Your task to perform on an android device: change keyboard looks Image 0: 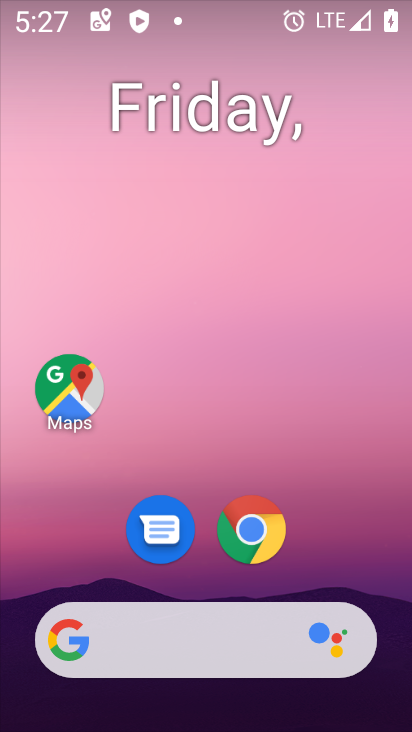
Step 0: drag from (338, 523) to (200, 51)
Your task to perform on an android device: change keyboard looks Image 1: 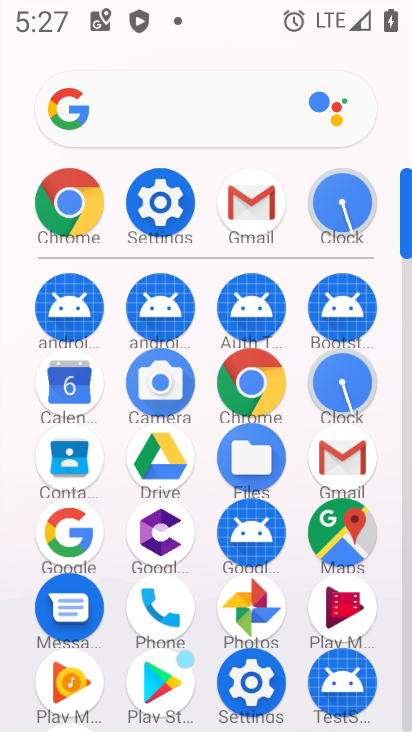
Step 1: click (159, 202)
Your task to perform on an android device: change keyboard looks Image 2: 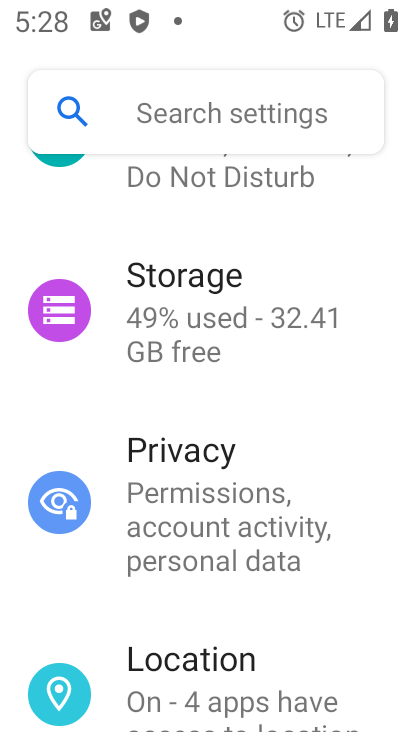
Step 2: drag from (283, 619) to (227, 69)
Your task to perform on an android device: change keyboard looks Image 3: 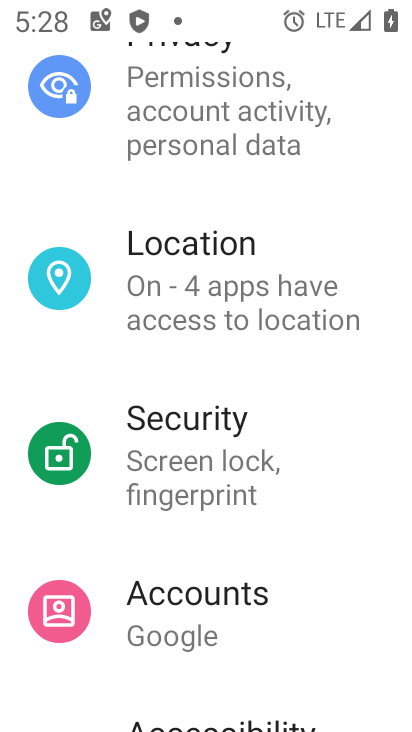
Step 3: drag from (276, 663) to (268, 162)
Your task to perform on an android device: change keyboard looks Image 4: 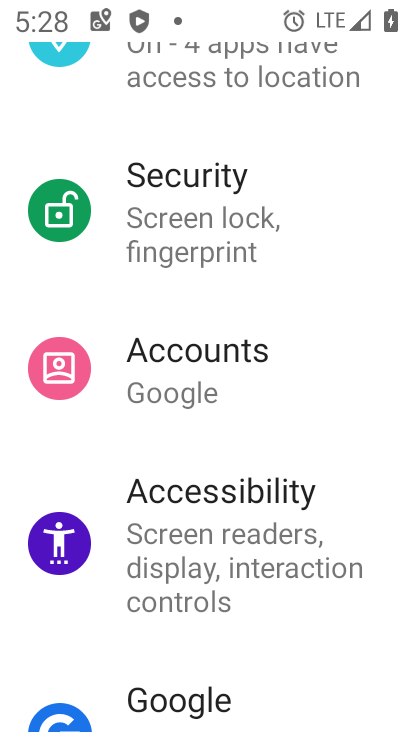
Step 4: drag from (262, 544) to (209, 49)
Your task to perform on an android device: change keyboard looks Image 5: 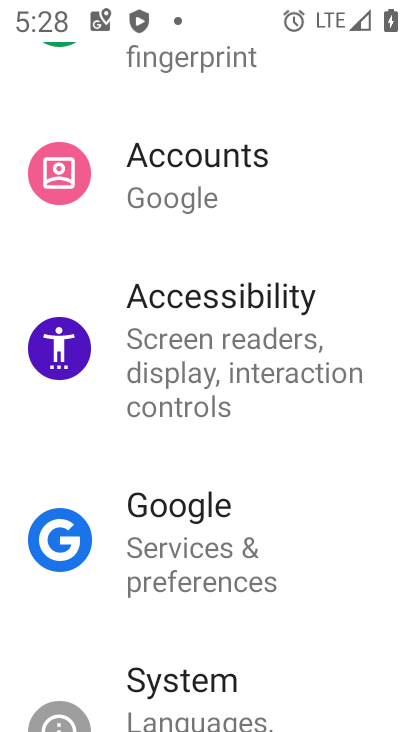
Step 5: click (205, 682)
Your task to perform on an android device: change keyboard looks Image 6: 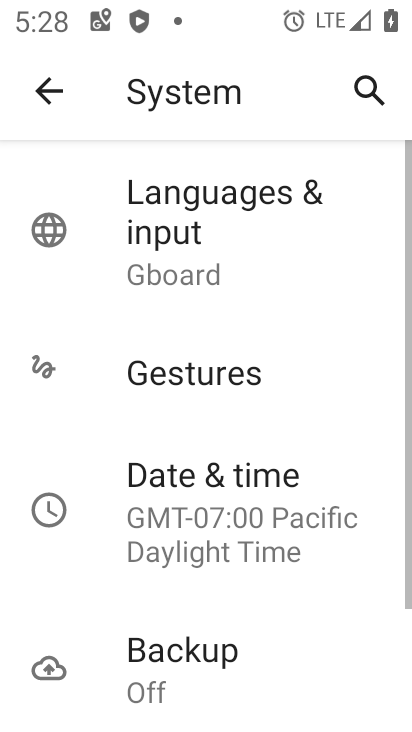
Step 6: click (181, 206)
Your task to perform on an android device: change keyboard looks Image 7: 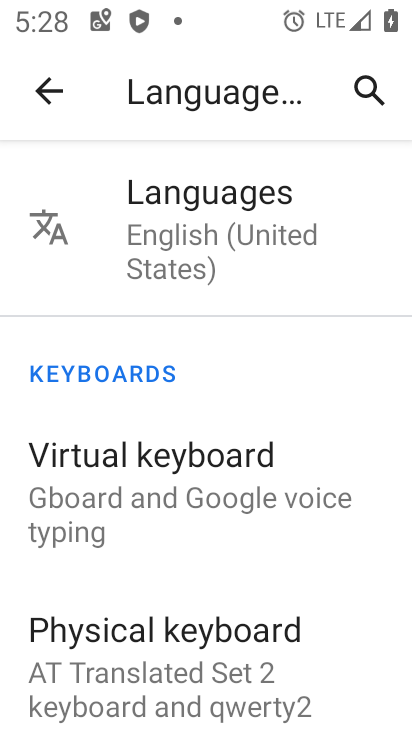
Step 7: click (163, 471)
Your task to perform on an android device: change keyboard looks Image 8: 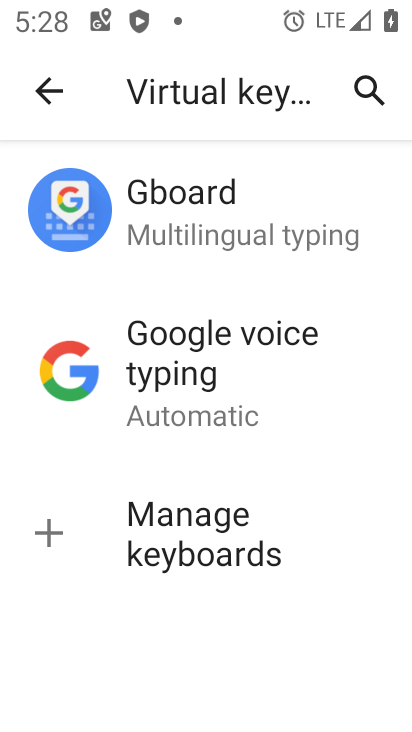
Step 8: click (183, 215)
Your task to perform on an android device: change keyboard looks Image 9: 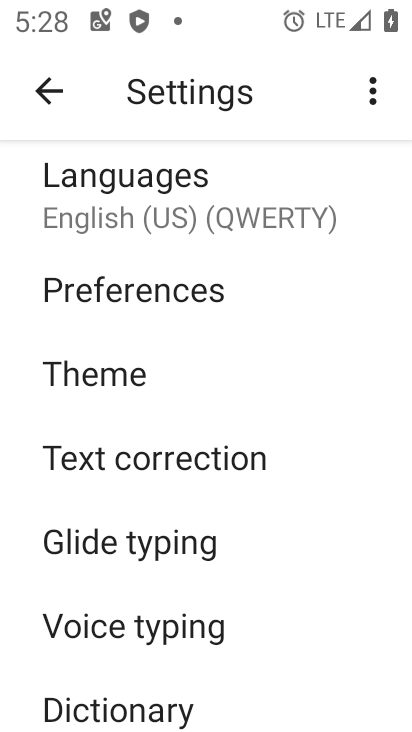
Step 9: click (156, 373)
Your task to perform on an android device: change keyboard looks Image 10: 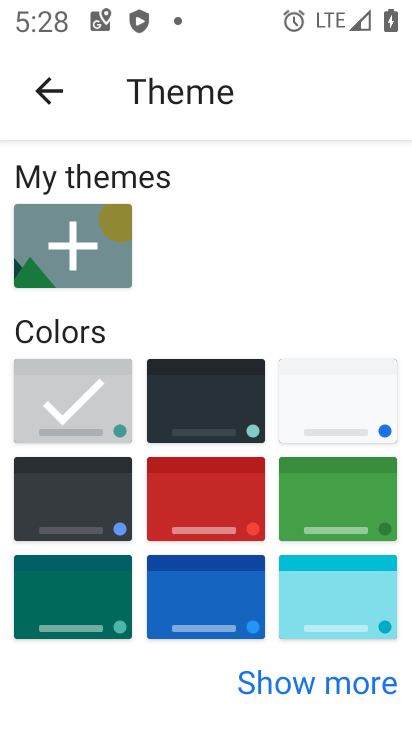
Step 10: click (206, 415)
Your task to perform on an android device: change keyboard looks Image 11: 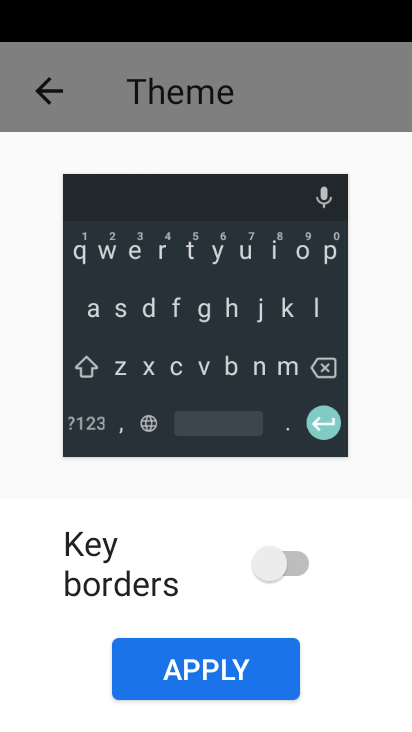
Step 11: click (212, 672)
Your task to perform on an android device: change keyboard looks Image 12: 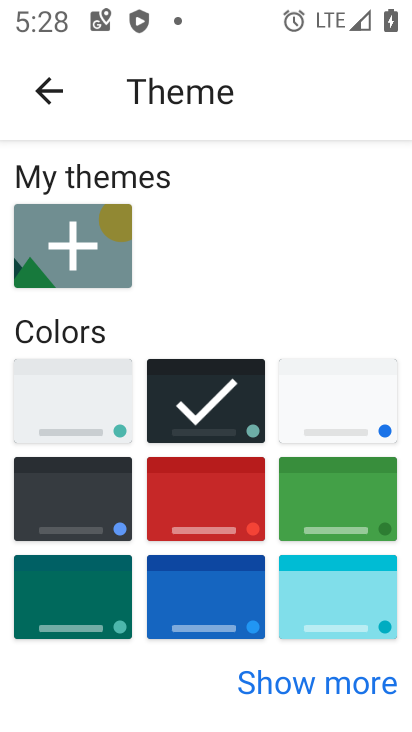
Step 12: task complete